Your task to perform on an android device: move a message to another label in the gmail app Image 0: 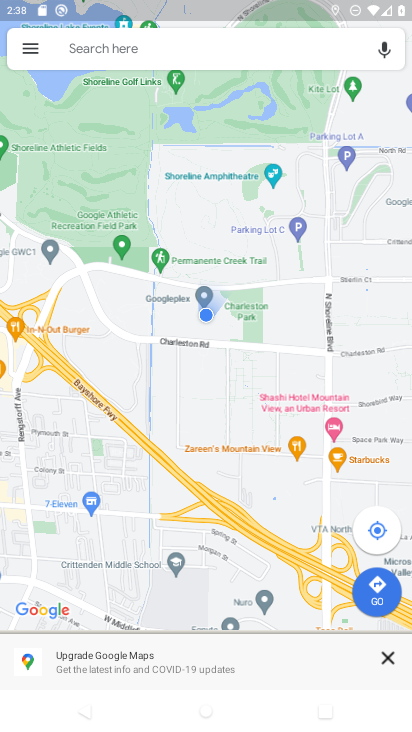
Step 0: press home button
Your task to perform on an android device: move a message to another label in the gmail app Image 1: 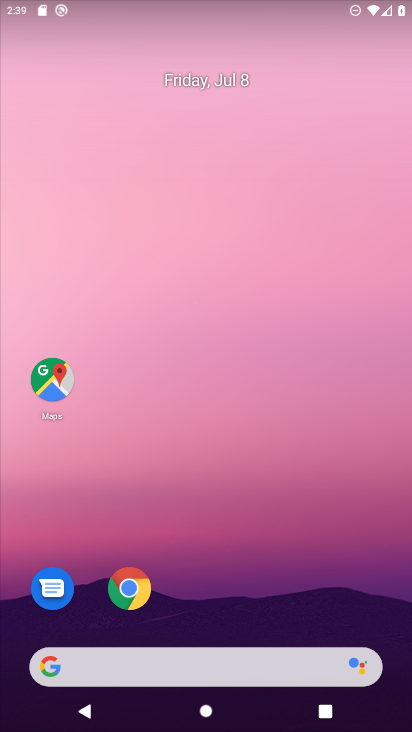
Step 1: drag from (217, 481) to (187, 55)
Your task to perform on an android device: move a message to another label in the gmail app Image 2: 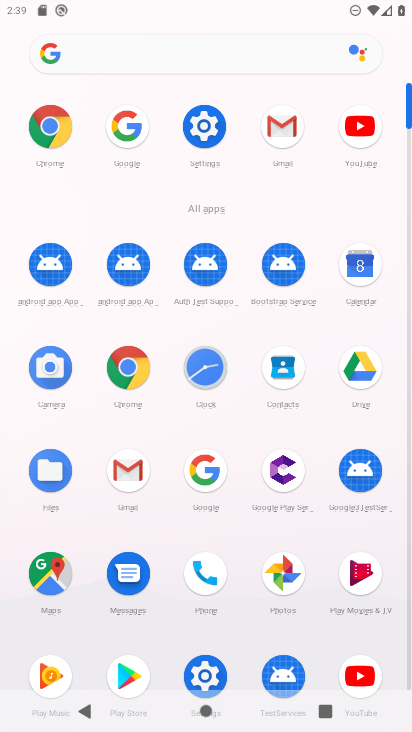
Step 2: click (289, 140)
Your task to perform on an android device: move a message to another label in the gmail app Image 3: 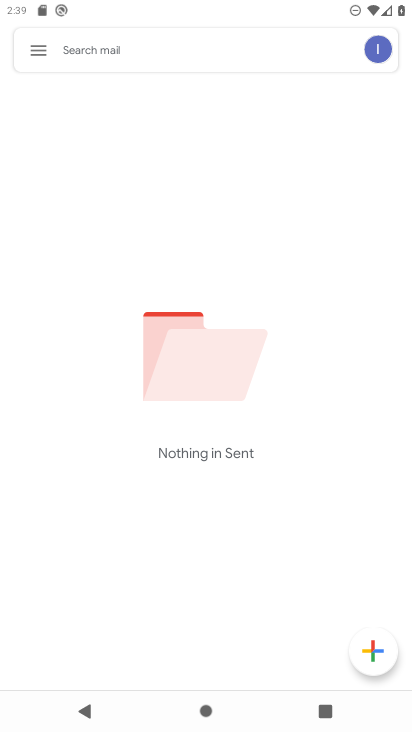
Step 3: task complete